Your task to perform on an android device: turn off notifications in google photos Image 0: 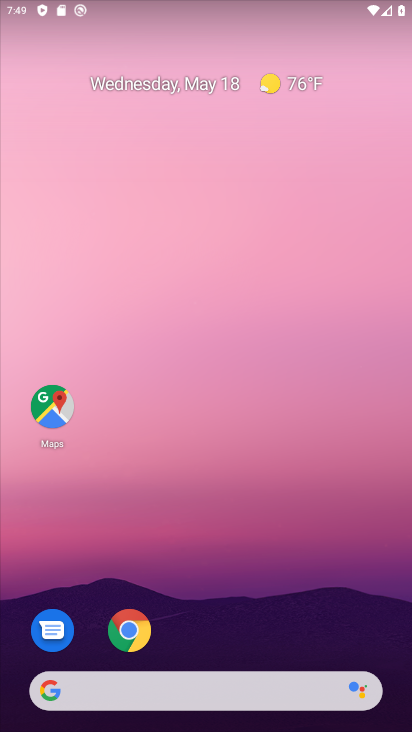
Step 0: drag from (230, 646) to (24, 49)
Your task to perform on an android device: turn off notifications in google photos Image 1: 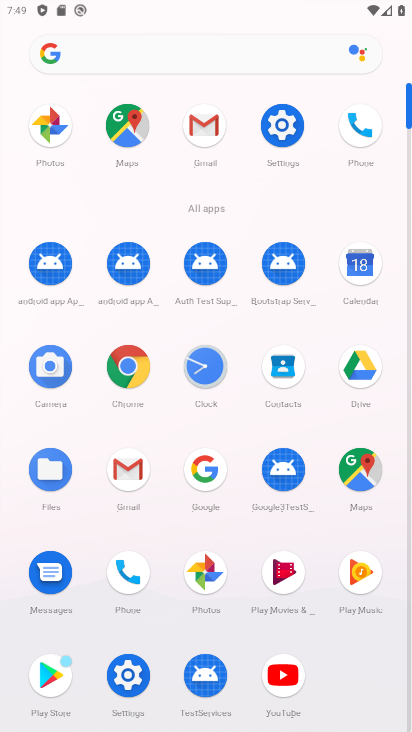
Step 1: click (212, 573)
Your task to perform on an android device: turn off notifications in google photos Image 2: 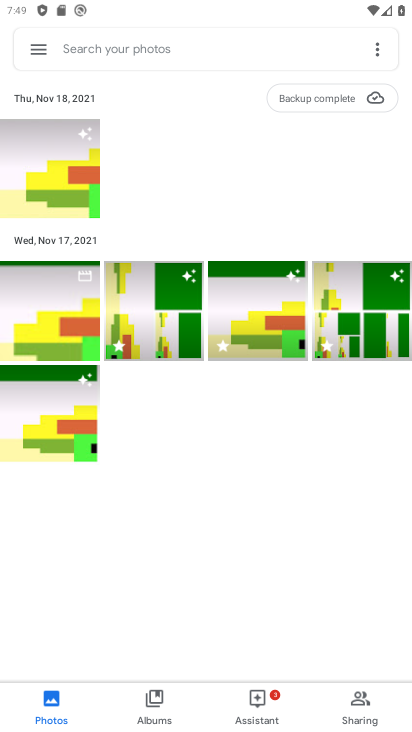
Step 2: press home button
Your task to perform on an android device: turn off notifications in google photos Image 3: 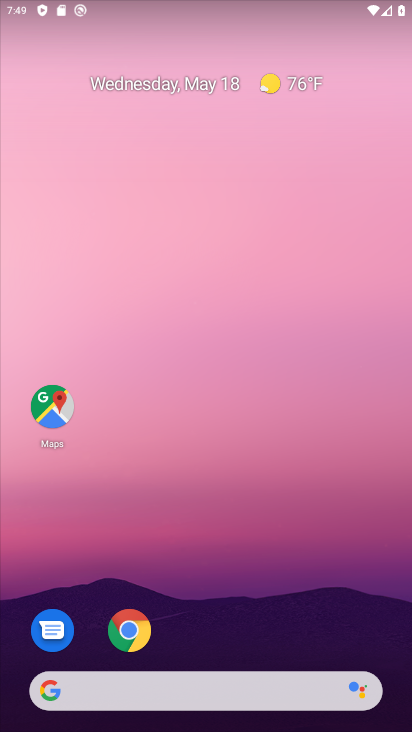
Step 3: drag from (216, 730) to (333, 3)
Your task to perform on an android device: turn off notifications in google photos Image 4: 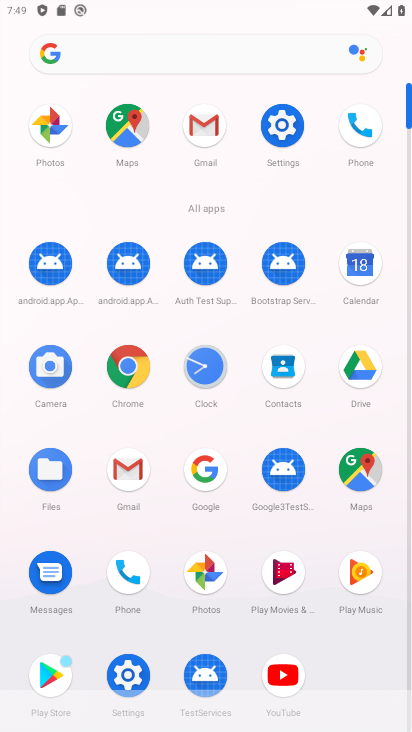
Step 4: click (191, 569)
Your task to perform on an android device: turn off notifications in google photos Image 5: 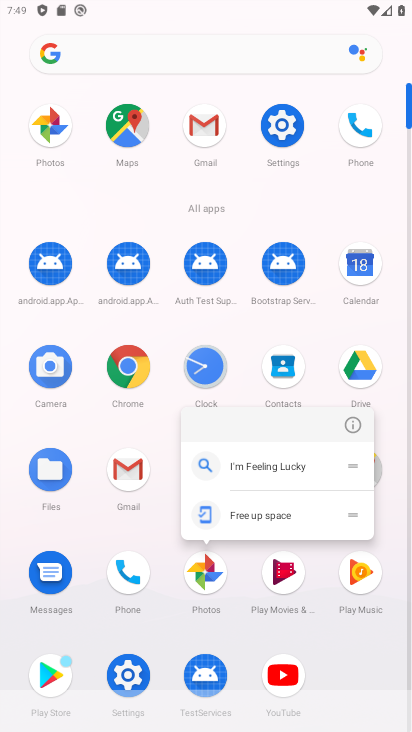
Step 5: click (353, 427)
Your task to perform on an android device: turn off notifications in google photos Image 6: 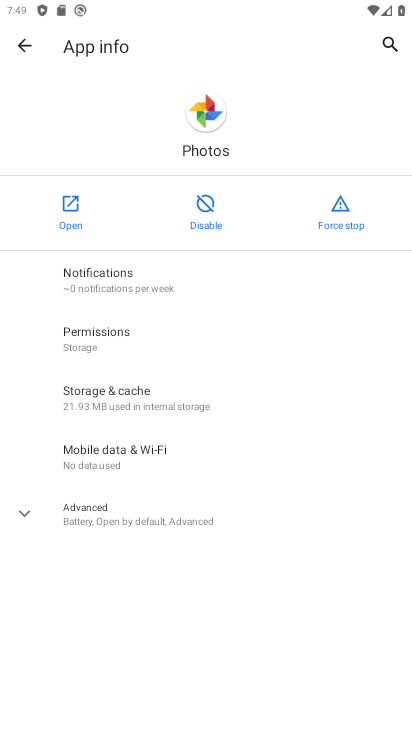
Step 6: click (226, 274)
Your task to perform on an android device: turn off notifications in google photos Image 7: 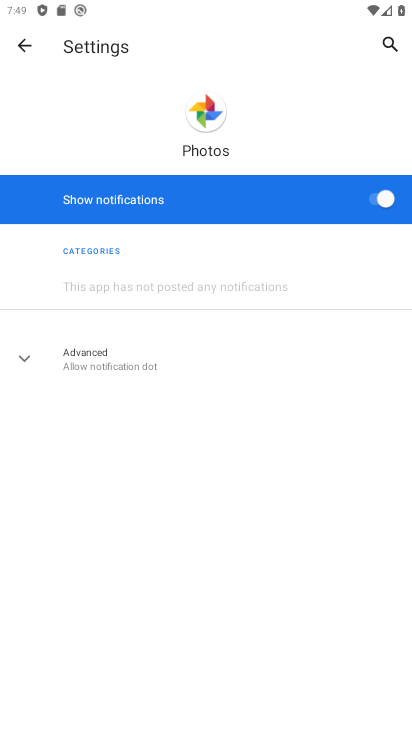
Step 7: task complete